Your task to perform on an android device: Go to Wikipedia Image 0: 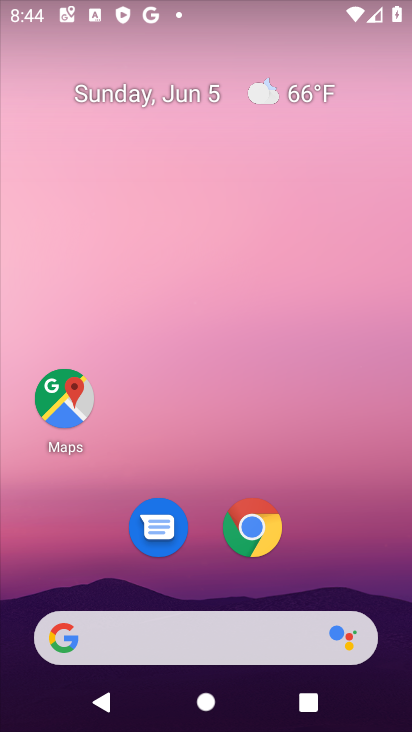
Step 0: click (254, 532)
Your task to perform on an android device: Go to Wikipedia Image 1: 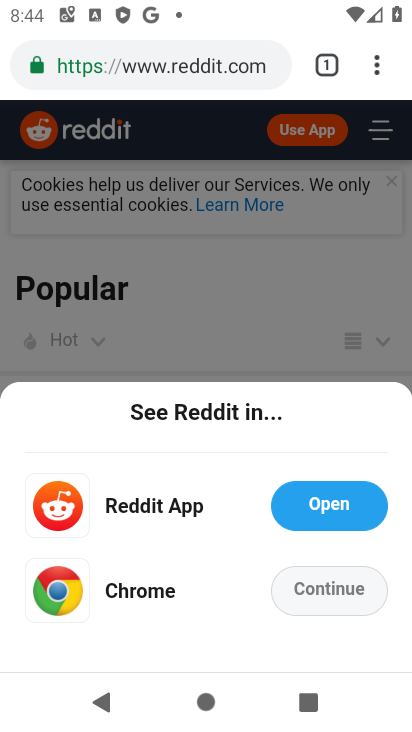
Step 1: click (337, 66)
Your task to perform on an android device: Go to Wikipedia Image 2: 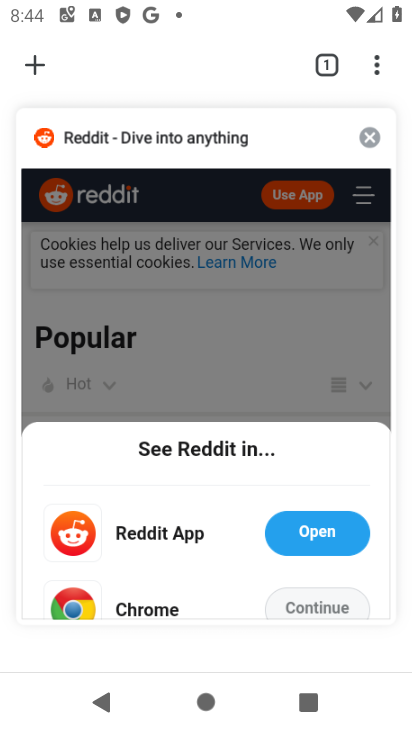
Step 2: click (47, 62)
Your task to perform on an android device: Go to Wikipedia Image 3: 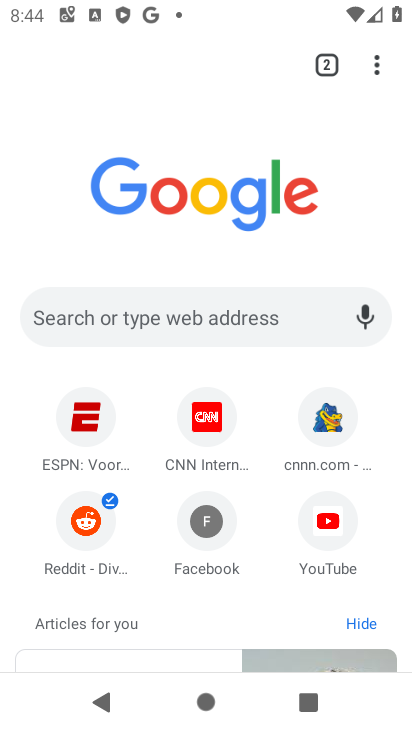
Step 3: click (152, 321)
Your task to perform on an android device: Go to Wikipedia Image 4: 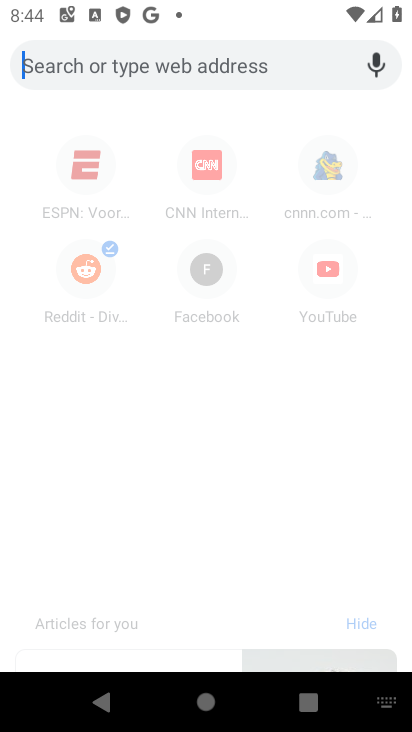
Step 4: type "wiki"
Your task to perform on an android device: Go to Wikipedia Image 5: 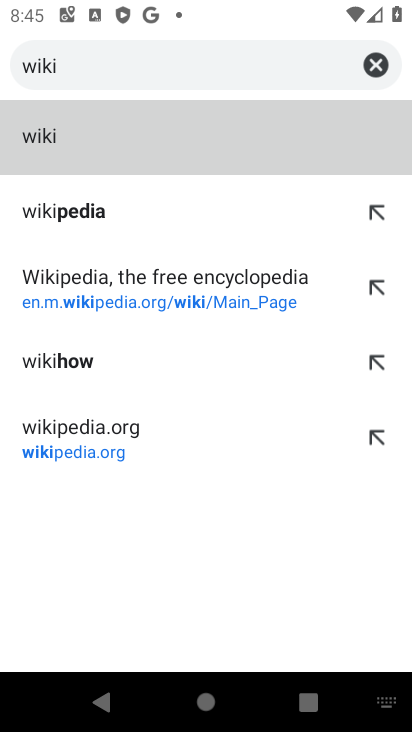
Step 5: type ""
Your task to perform on an android device: Go to Wikipedia Image 6: 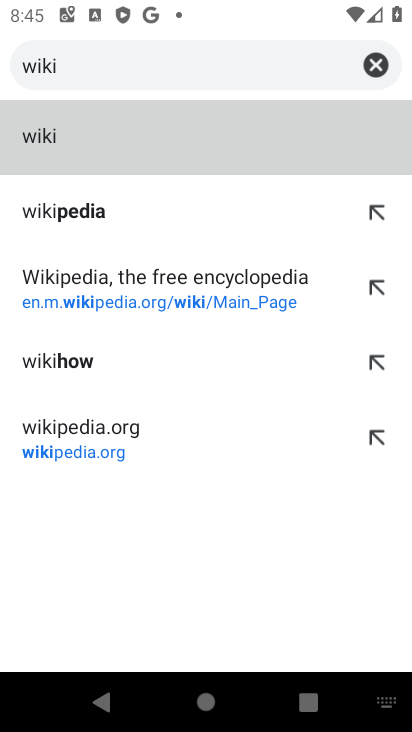
Step 6: click (193, 304)
Your task to perform on an android device: Go to Wikipedia Image 7: 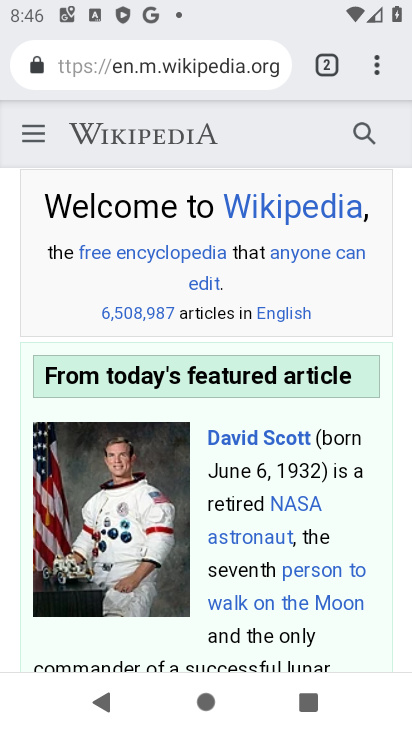
Step 7: task complete